Your task to perform on an android device: Go to accessibility settings Image 0: 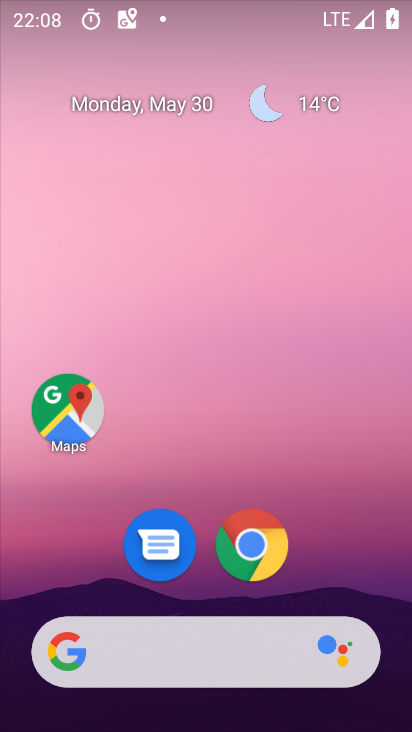
Step 0: drag from (318, 556) to (309, 64)
Your task to perform on an android device: Go to accessibility settings Image 1: 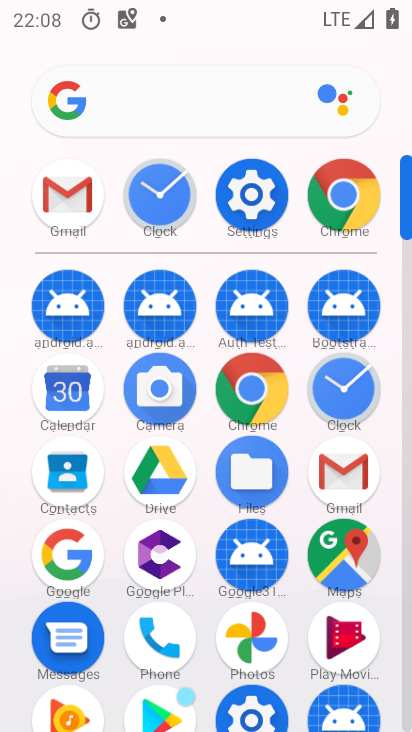
Step 1: click (254, 186)
Your task to perform on an android device: Go to accessibility settings Image 2: 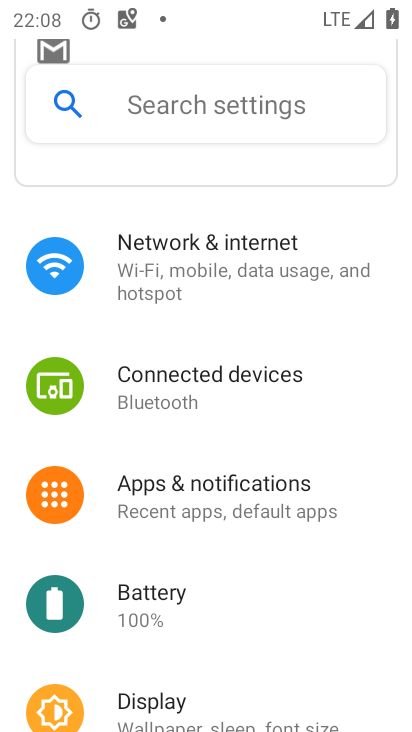
Step 2: drag from (267, 618) to (297, 140)
Your task to perform on an android device: Go to accessibility settings Image 3: 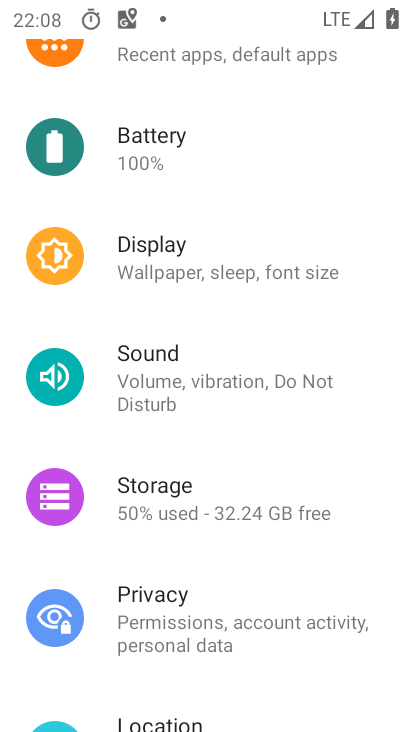
Step 3: drag from (286, 643) to (364, 77)
Your task to perform on an android device: Go to accessibility settings Image 4: 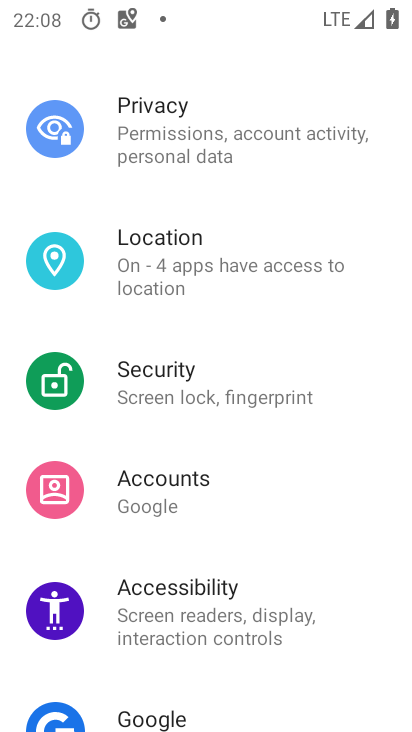
Step 4: click (215, 631)
Your task to perform on an android device: Go to accessibility settings Image 5: 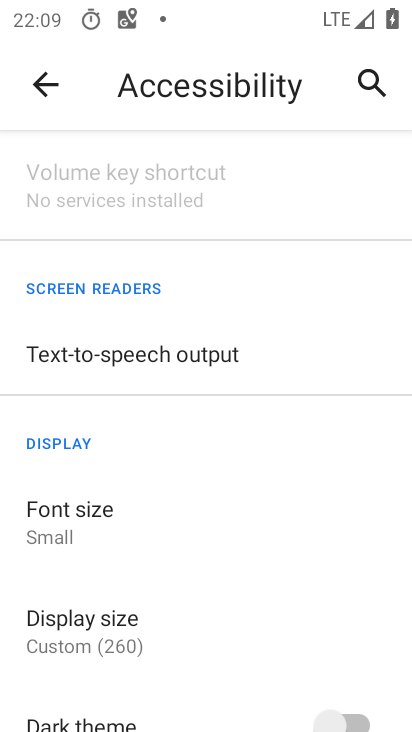
Step 5: task complete